Your task to perform on an android device: Go to sound settings Image 0: 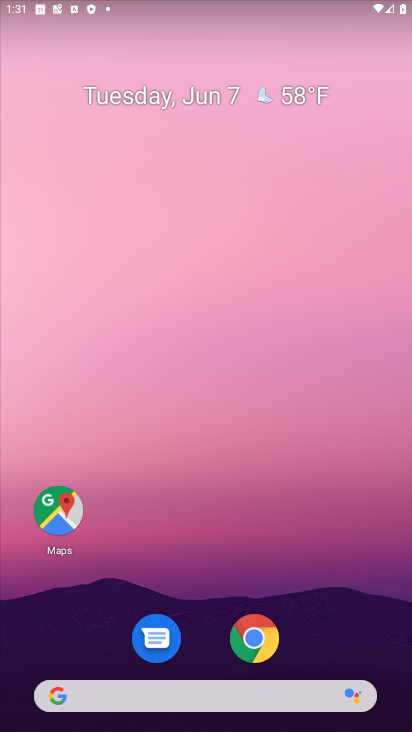
Step 0: drag from (217, 667) to (241, 296)
Your task to perform on an android device: Go to sound settings Image 1: 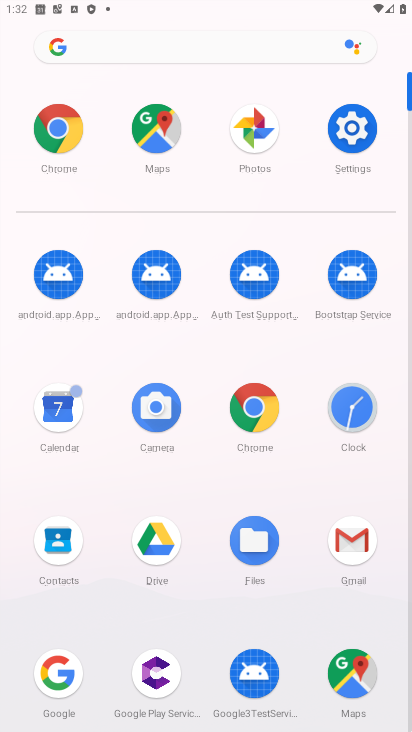
Step 1: click (350, 130)
Your task to perform on an android device: Go to sound settings Image 2: 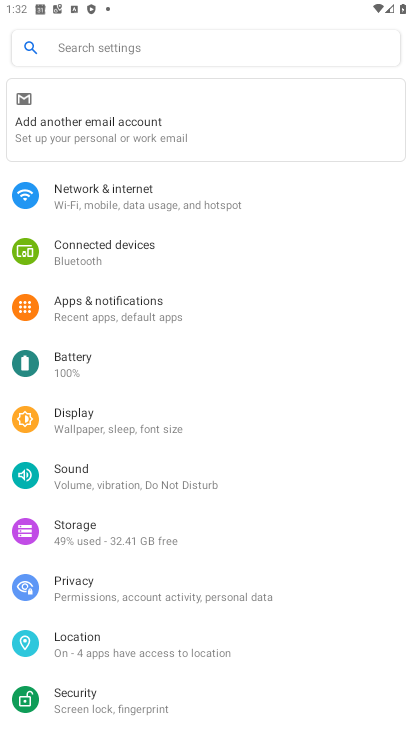
Step 2: drag from (158, 677) to (215, 289)
Your task to perform on an android device: Go to sound settings Image 3: 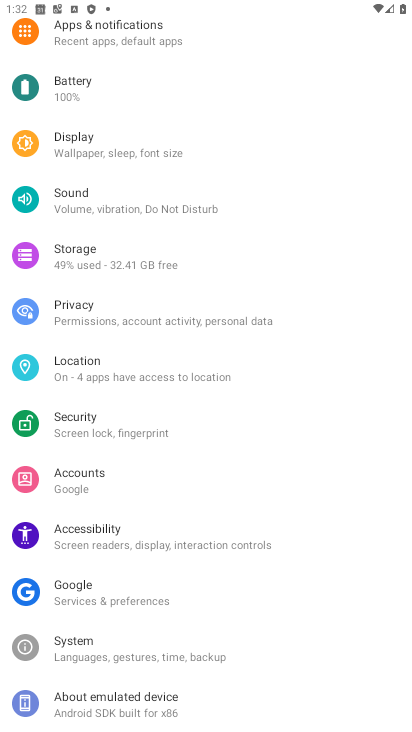
Step 3: drag from (109, 642) to (144, 255)
Your task to perform on an android device: Go to sound settings Image 4: 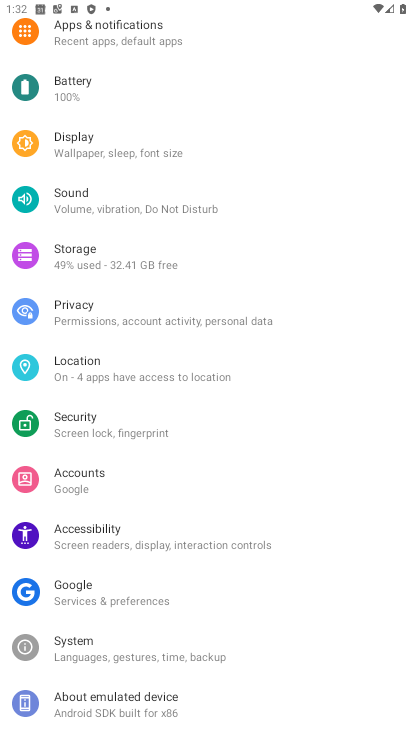
Step 4: click (109, 204)
Your task to perform on an android device: Go to sound settings Image 5: 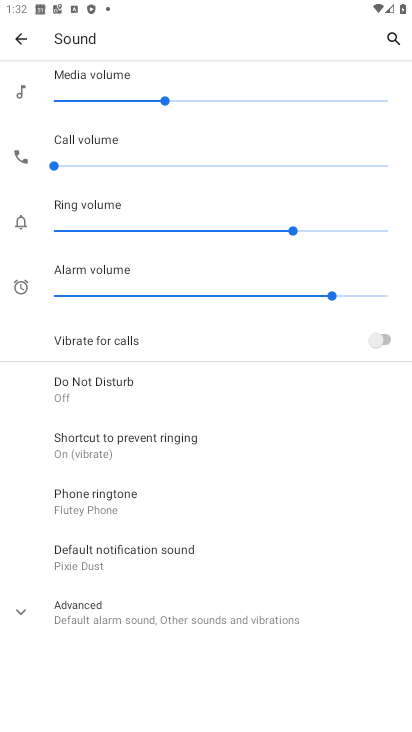
Step 5: task complete